Your task to perform on an android device: delete browsing data in the chrome app Image 0: 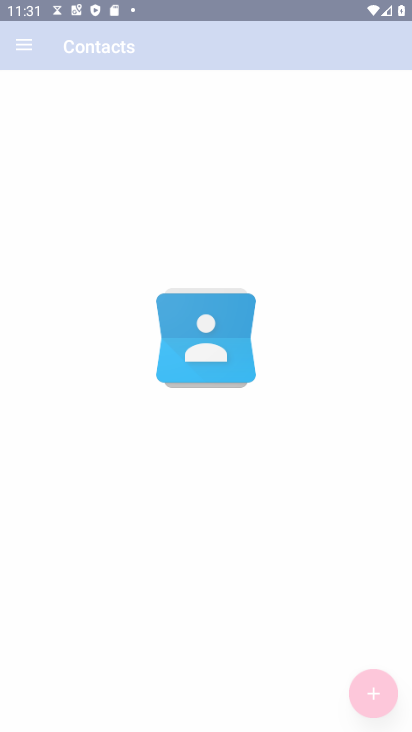
Step 0: click (101, 698)
Your task to perform on an android device: delete browsing data in the chrome app Image 1: 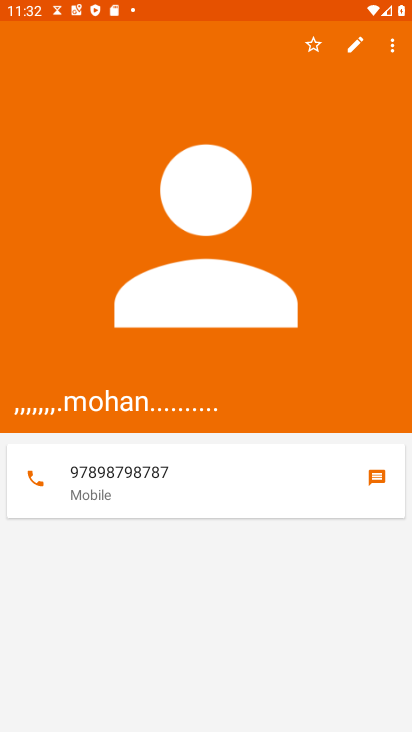
Step 1: press home button
Your task to perform on an android device: delete browsing data in the chrome app Image 2: 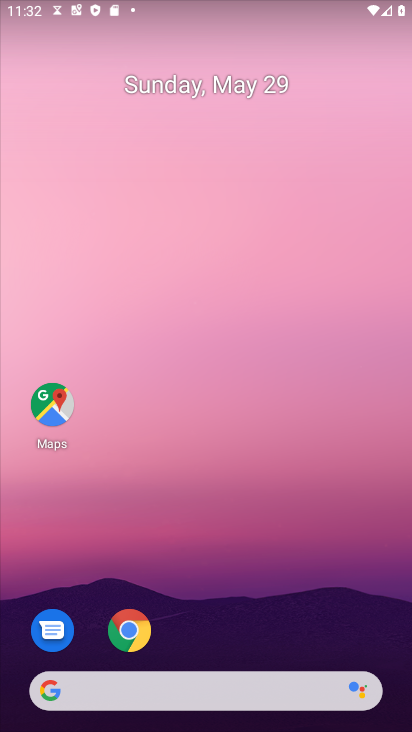
Step 2: click (119, 648)
Your task to perform on an android device: delete browsing data in the chrome app Image 3: 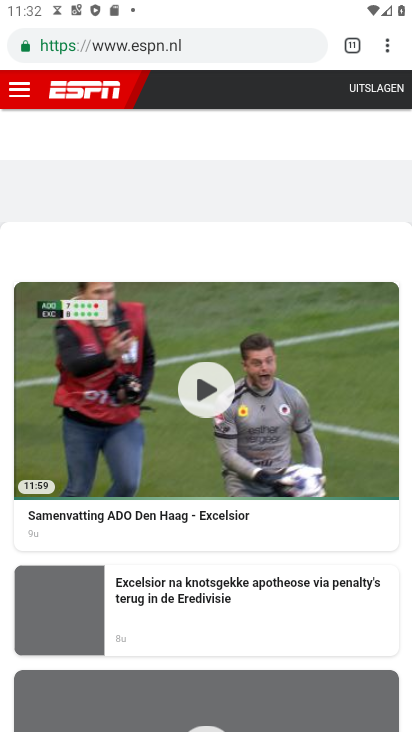
Step 3: click (386, 52)
Your task to perform on an android device: delete browsing data in the chrome app Image 4: 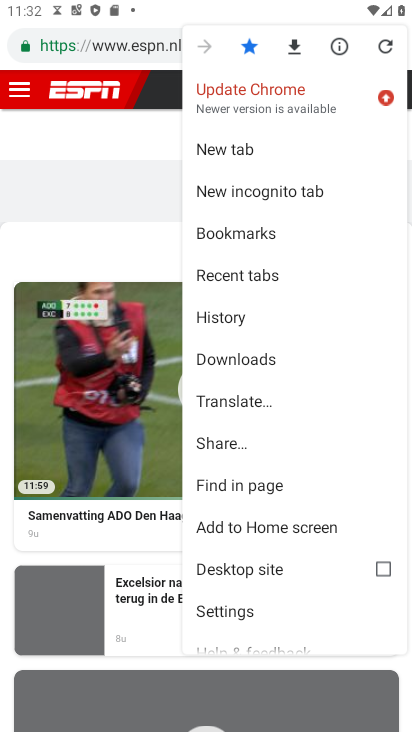
Step 4: click (214, 605)
Your task to perform on an android device: delete browsing data in the chrome app Image 5: 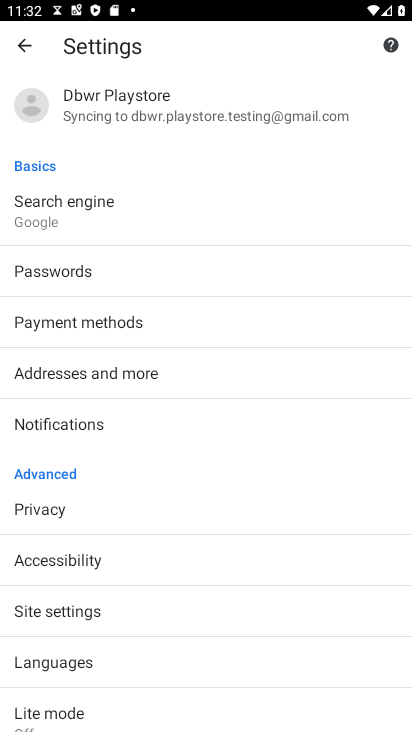
Step 5: click (58, 488)
Your task to perform on an android device: delete browsing data in the chrome app Image 6: 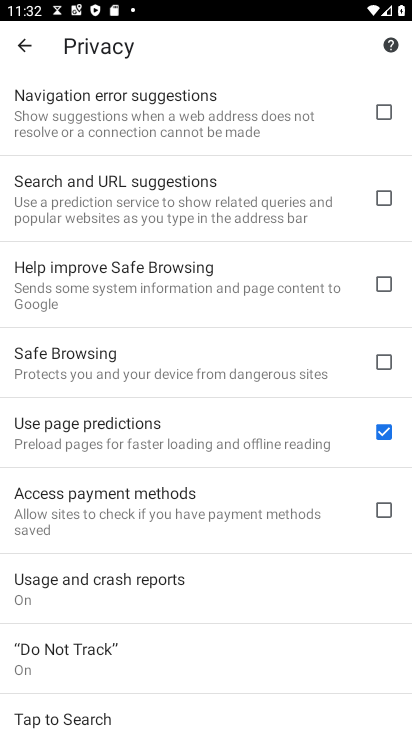
Step 6: drag from (179, 636) to (178, 190)
Your task to perform on an android device: delete browsing data in the chrome app Image 7: 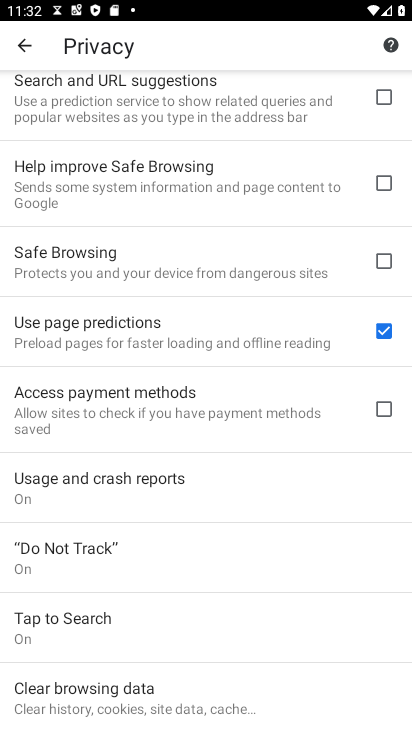
Step 7: click (129, 703)
Your task to perform on an android device: delete browsing data in the chrome app Image 8: 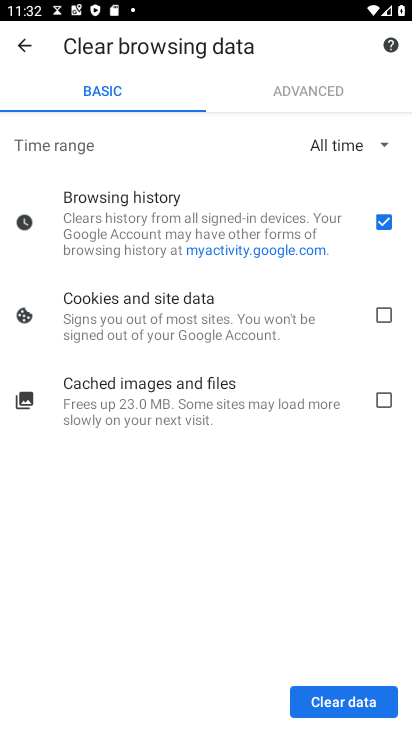
Step 8: click (352, 699)
Your task to perform on an android device: delete browsing data in the chrome app Image 9: 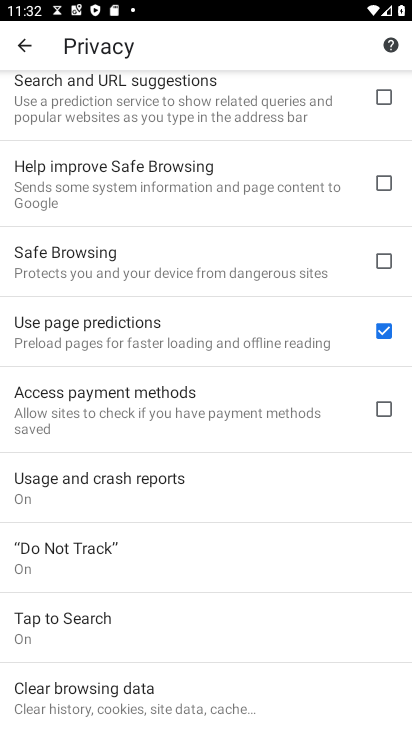
Step 9: task complete